Your task to perform on an android device: Search for "logitech g933" on costco.com, select the first entry, and add it to the cart. Image 0: 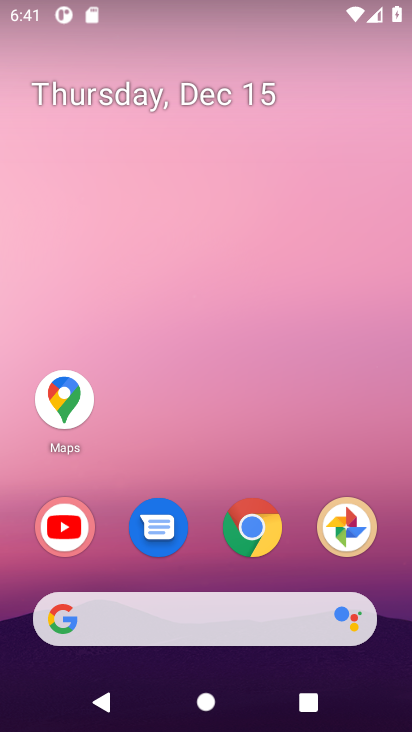
Step 0: click (257, 542)
Your task to perform on an android device: Search for "logitech g933" on costco.com, select the first entry, and add it to the cart. Image 1: 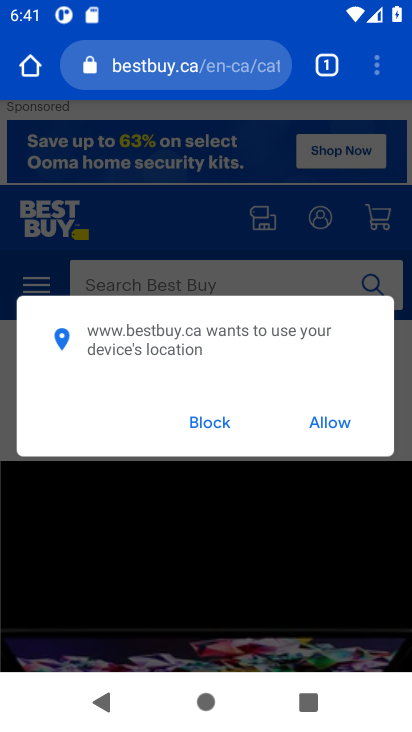
Step 1: click (302, 419)
Your task to perform on an android device: Search for "logitech g933" on costco.com, select the first entry, and add it to the cart. Image 2: 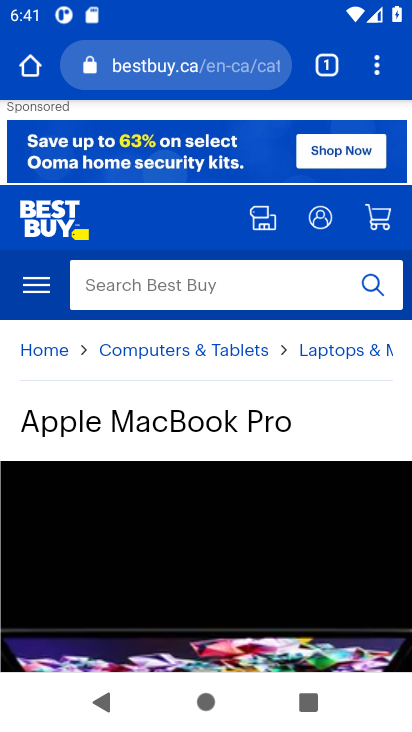
Step 2: click (175, 83)
Your task to perform on an android device: Search for "logitech g933" on costco.com, select the first entry, and add it to the cart. Image 3: 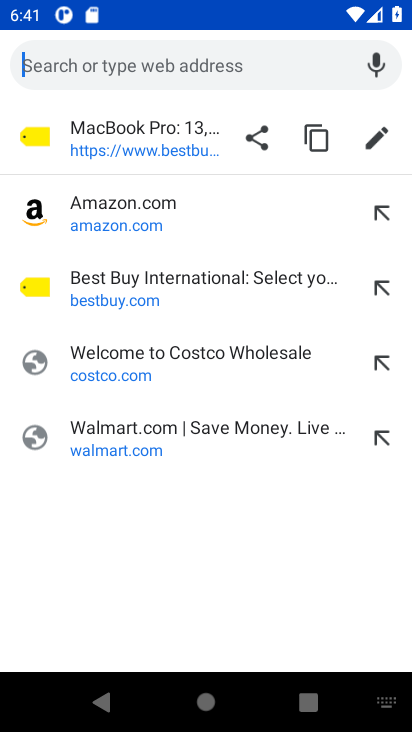
Step 3: type "costco"
Your task to perform on an android device: Search for "logitech g933" on costco.com, select the first entry, and add it to the cart. Image 4: 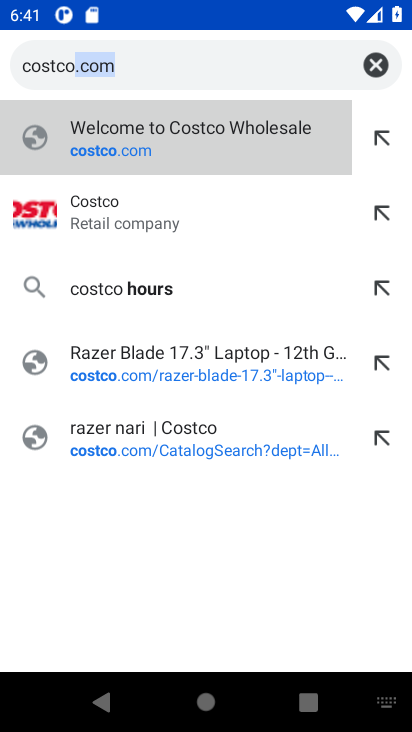
Step 4: click (177, 153)
Your task to perform on an android device: Search for "logitech g933" on costco.com, select the first entry, and add it to the cart. Image 5: 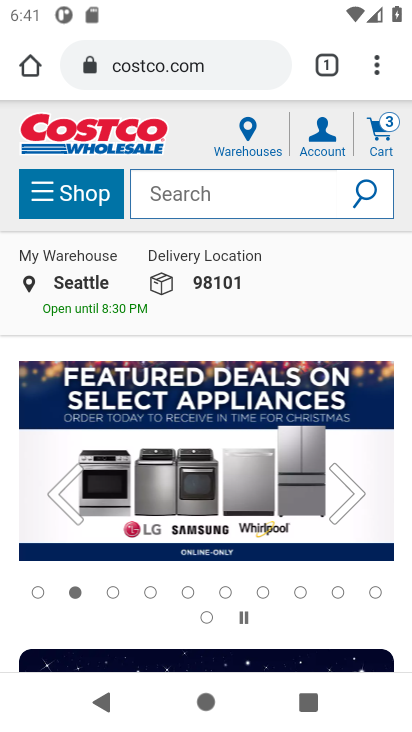
Step 5: click (237, 200)
Your task to perform on an android device: Search for "logitech g933" on costco.com, select the first entry, and add it to the cart. Image 6: 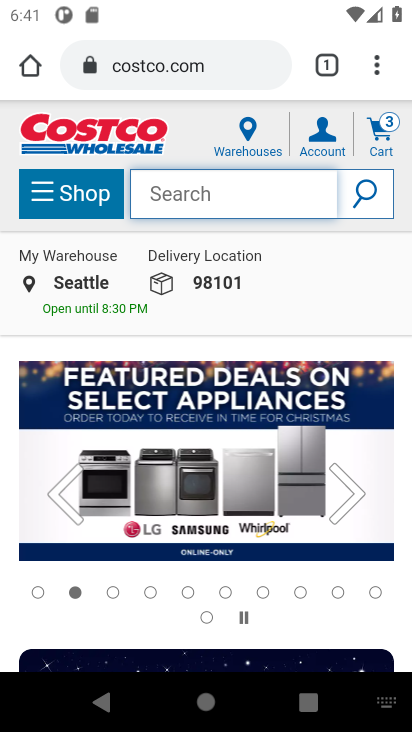
Step 6: type "logitech g933"
Your task to perform on an android device: Search for "logitech g933" on costco.com, select the first entry, and add it to the cart. Image 7: 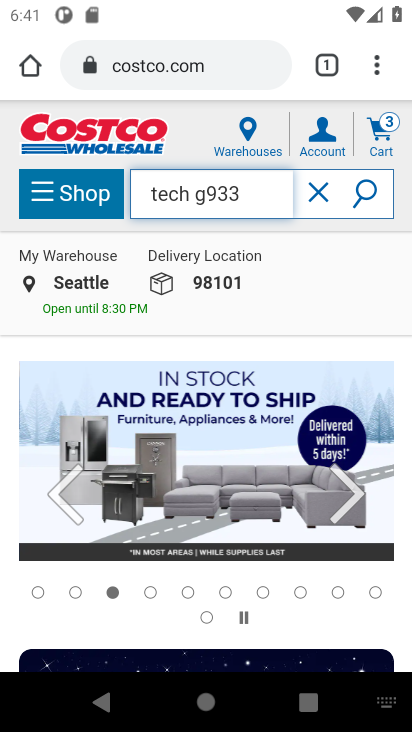
Step 7: click (359, 193)
Your task to perform on an android device: Search for "logitech g933" on costco.com, select the first entry, and add it to the cart. Image 8: 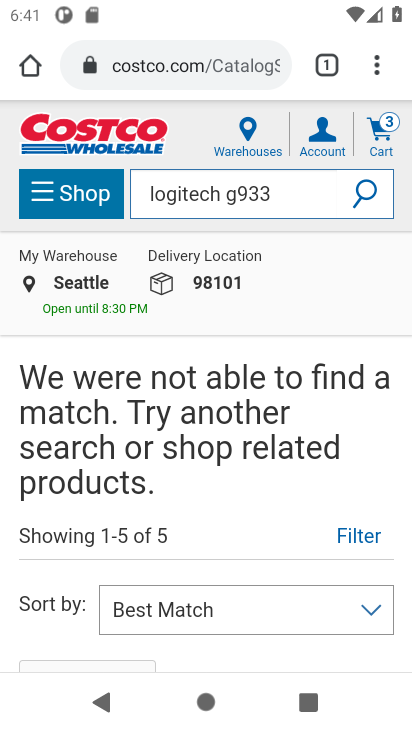
Step 8: task complete